Your task to perform on an android device: Open maps Image 0: 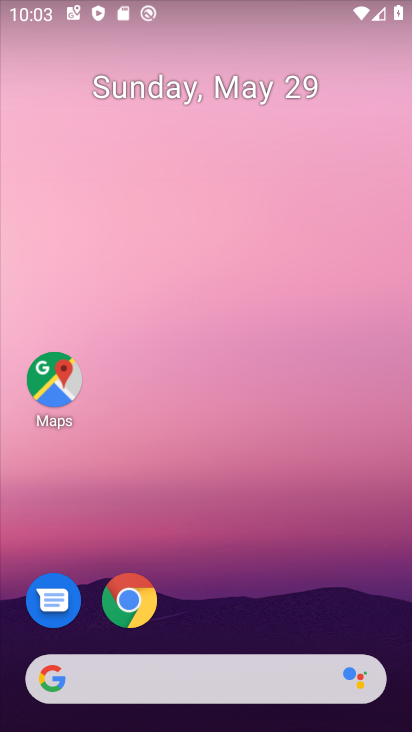
Step 0: drag from (205, 724) to (159, 25)
Your task to perform on an android device: Open maps Image 1: 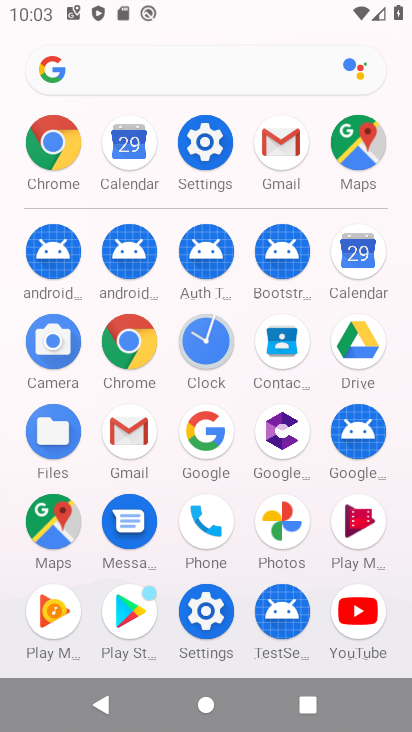
Step 1: click (41, 531)
Your task to perform on an android device: Open maps Image 2: 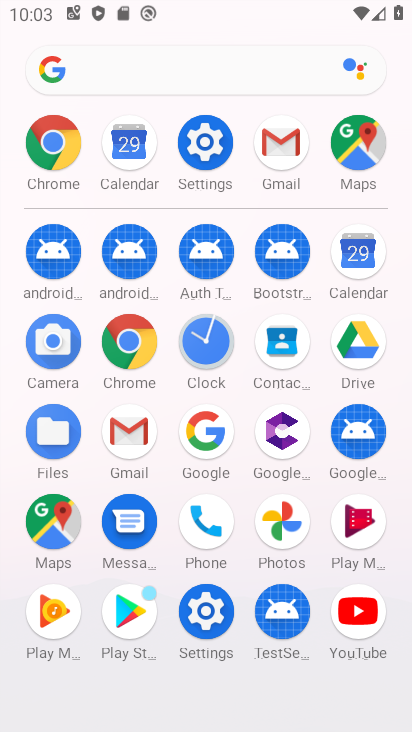
Step 2: click (360, 152)
Your task to perform on an android device: Open maps Image 3: 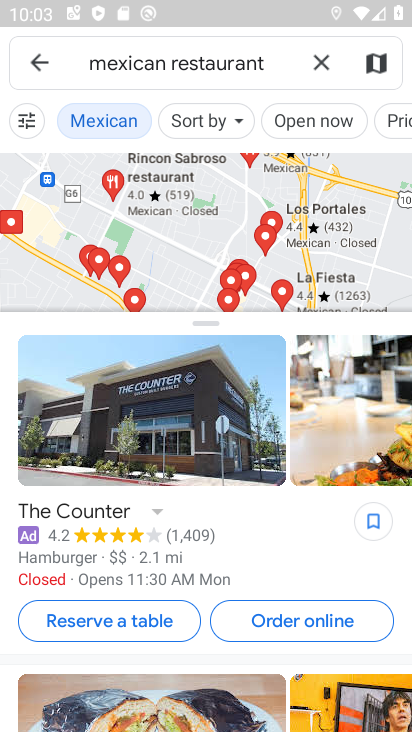
Step 3: task complete